Your task to perform on an android device: search for starred emails in the gmail app Image 0: 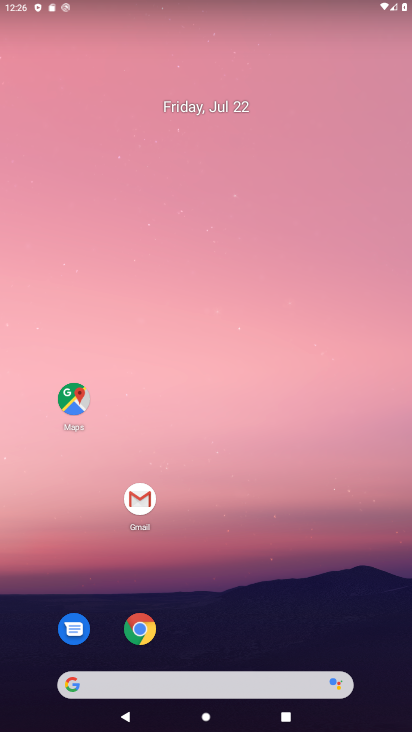
Step 0: drag from (267, 569) to (202, 145)
Your task to perform on an android device: search for starred emails in the gmail app Image 1: 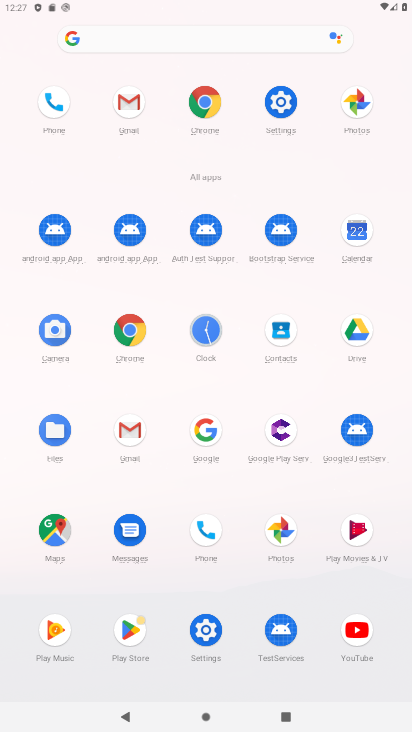
Step 1: click (131, 433)
Your task to perform on an android device: search for starred emails in the gmail app Image 2: 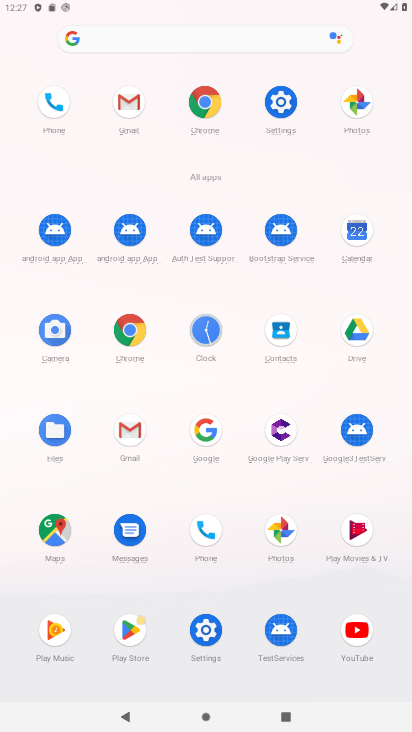
Step 2: click (130, 432)
Your task to perform on an android device: search for starred emails in the gmail app Image 3: 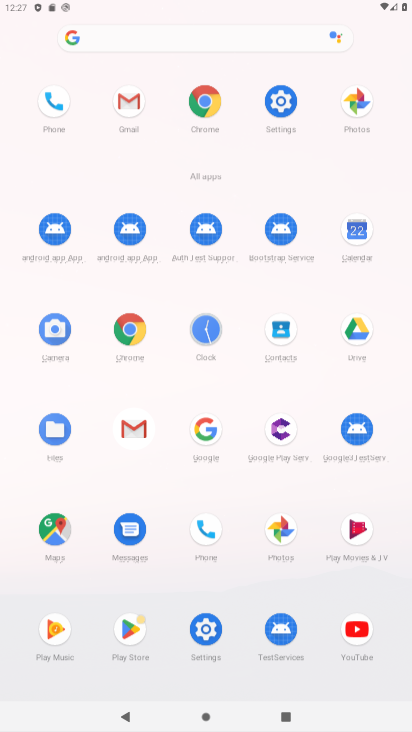
Step 3: click (130, 432)
Your task to perform on an android device: search for starred emails in the gmail app Image 4: 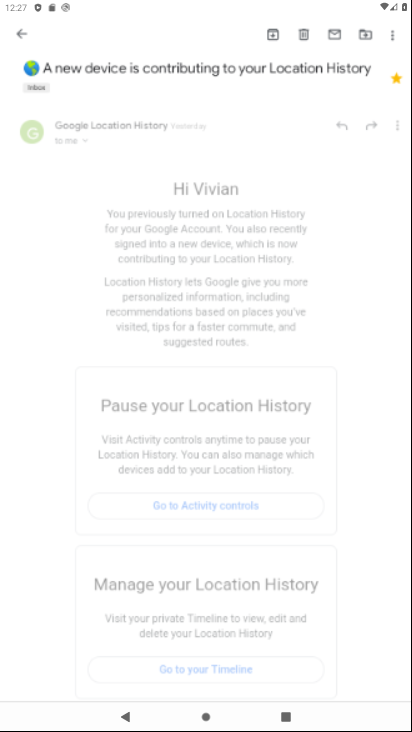
Step 4: click (130, 431)
Your task to perform on an android device: search for starred emails in the gmail app Image 5: 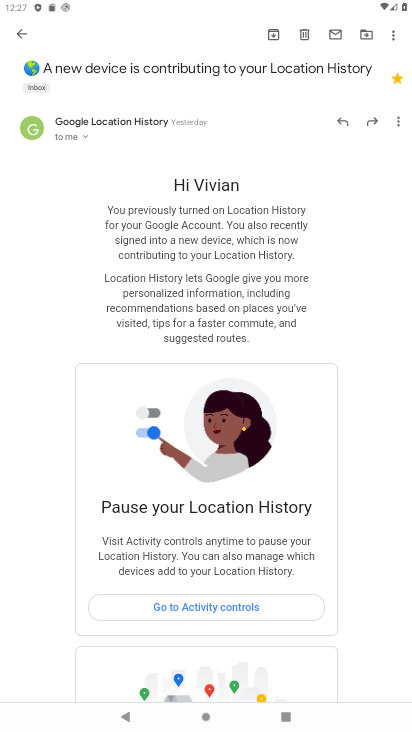
Step 5: click (23, 31)
Your task to perform on an android device: search for starred emails in the gmail app Image 6: 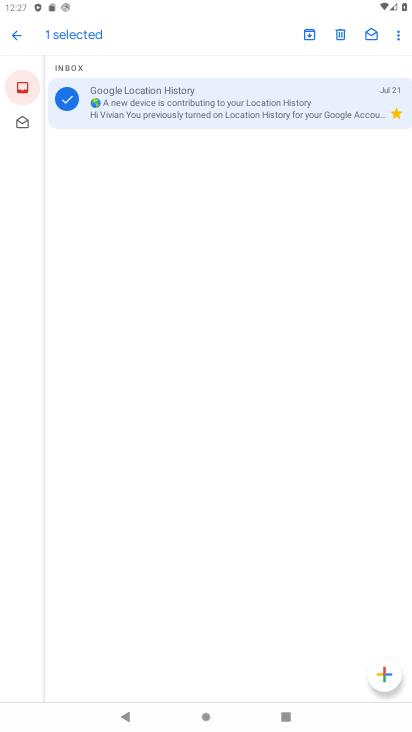
Step 6: task complete